Your task to perform on an android device: open app "Yahoo Mail" Image 0: 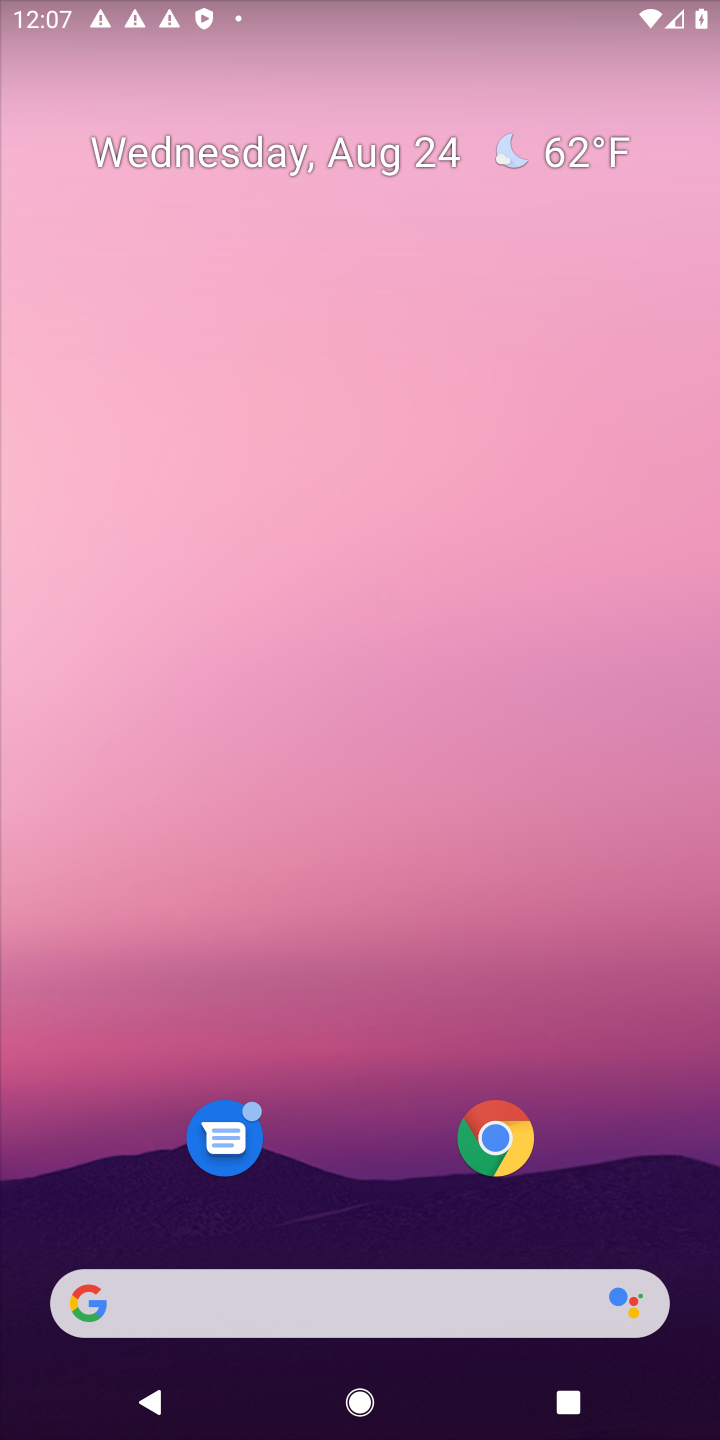
Step 0: drag from (350, 1220) to (470, 149)
Your task to perform on an android device: open app "Yahoo Mail" Image 1: 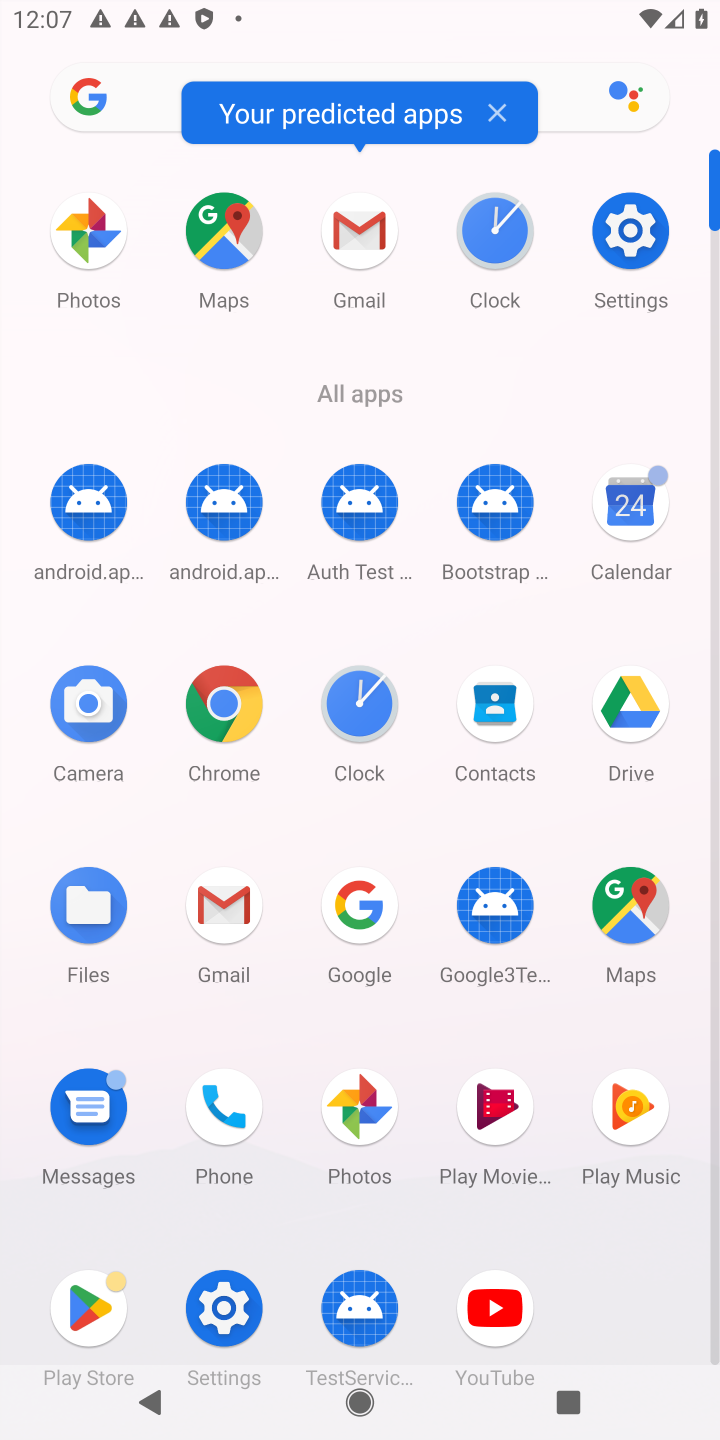
Step 1: click (92, 1308)
Your task to perform on an android device: open app "Yahoo Mail" Image 2: 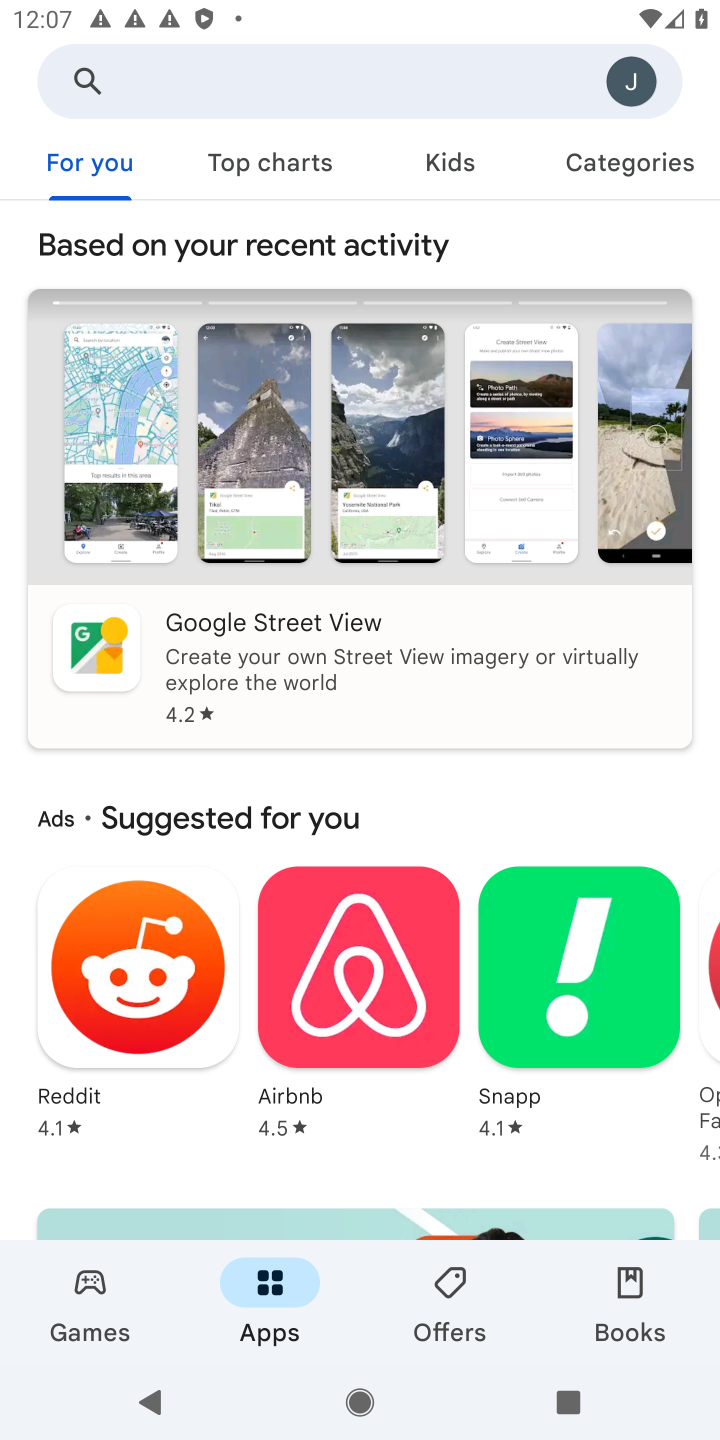
Step 2: click (402, 86)
Your task to perform on an android device: open app "Yahoo Mail" Image 3: 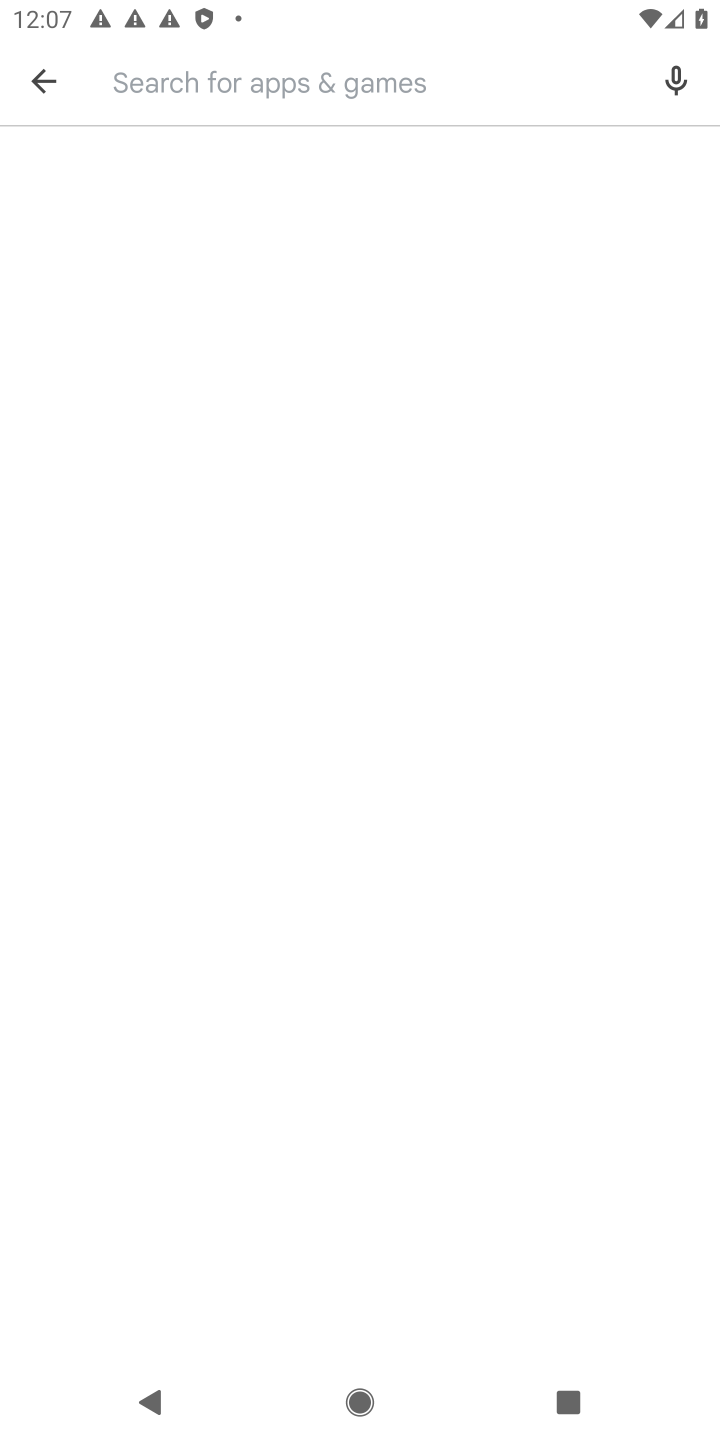
Step 3: click (270, 86)
Your task to perform on an android device: open app "Yahoo Mail" Image 4: 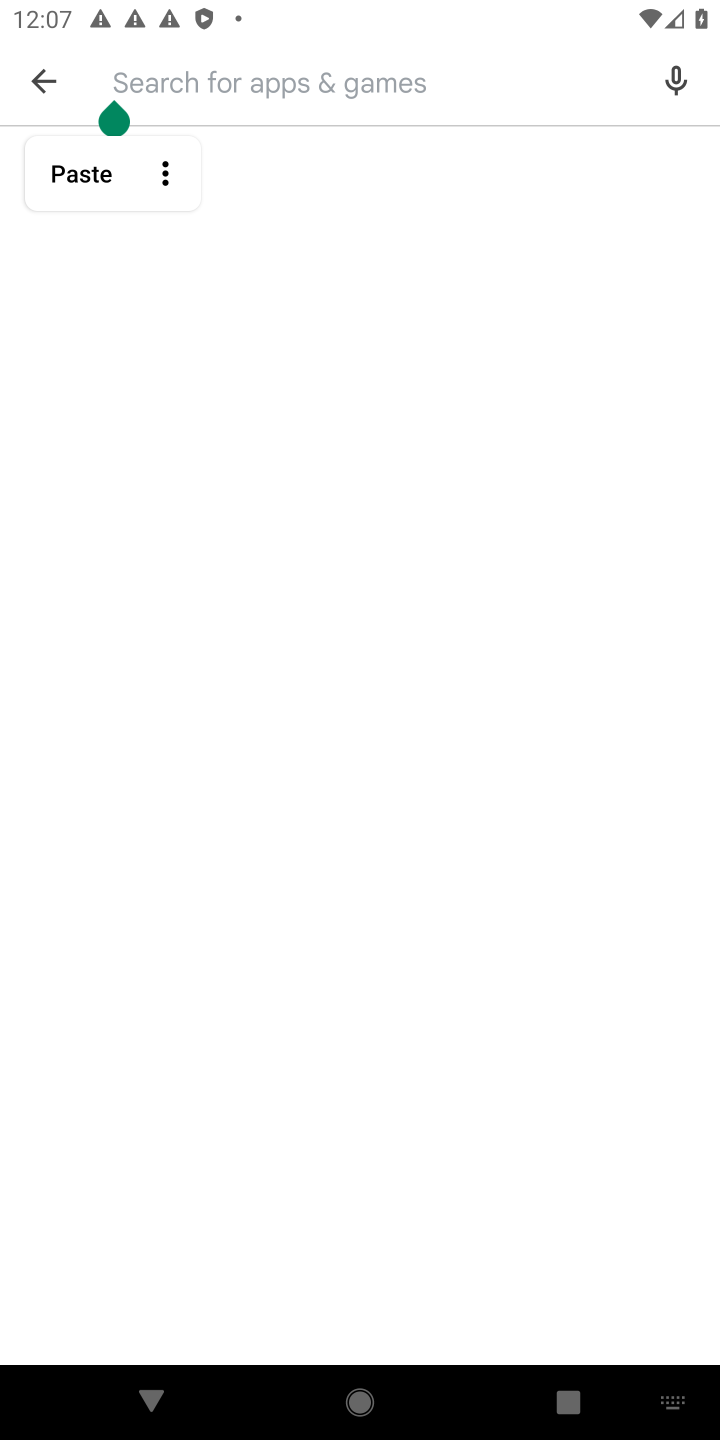
Step 4: type "yahoo"
Your task to perform on an android device: open app "Yahoo Mail" Image 5: 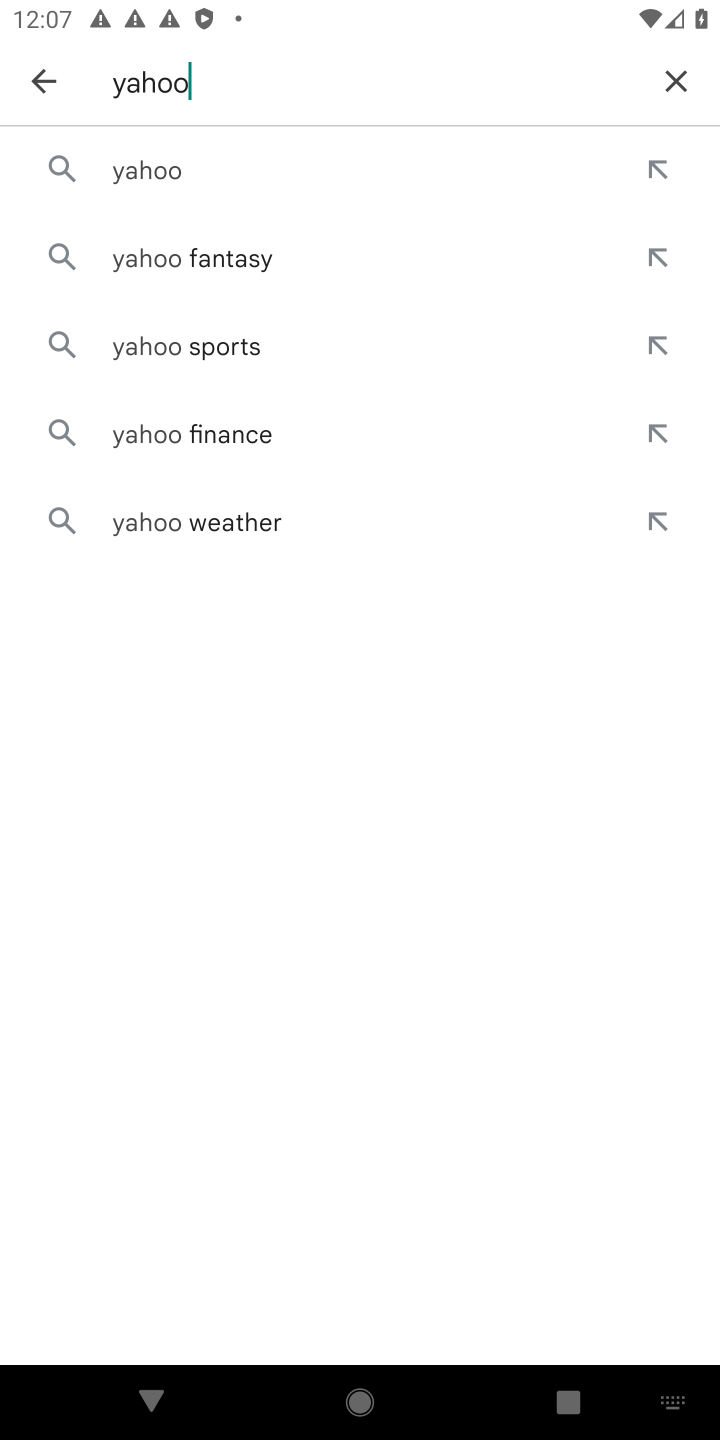
Step 5: click (145, 167)
Your task to perform on an android device: open app "Yahoo Mail" Image 6: 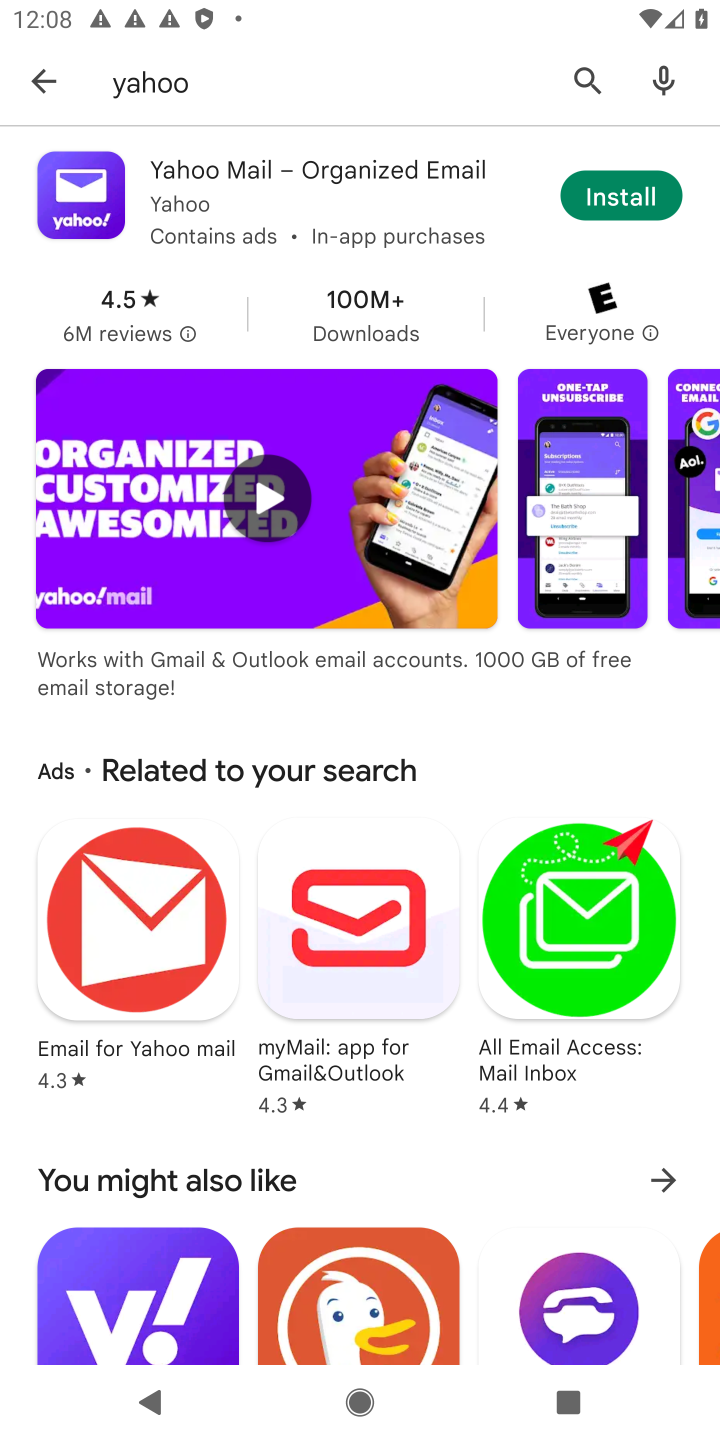
Step 6: task complete